Your task to perform on an android device: toggle translation in the chrome app Image 0: 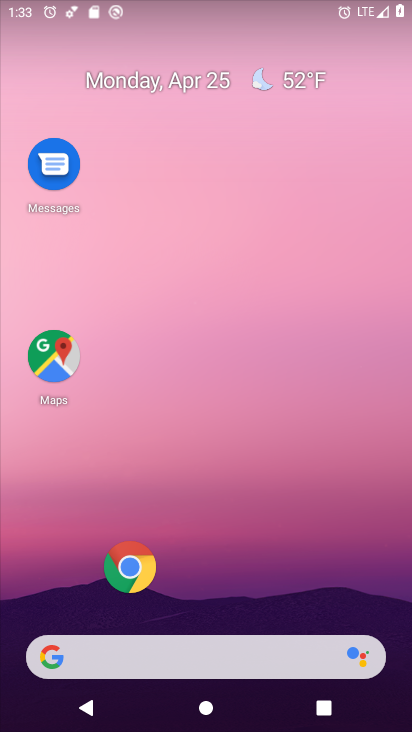
Step 0: drag from (217, 573) to (236, 116)
Your task to perform on an android device: toggle translation in the chrome app Image 1: 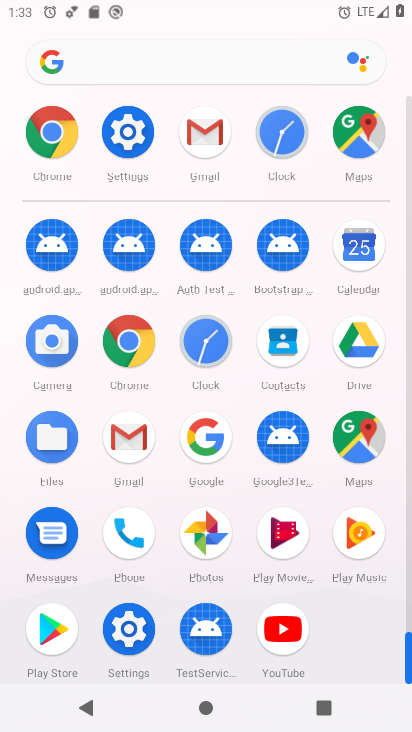
Step 1: click (120, 355)
Your task to perform on an android device: toggle translation in the chrome app Image 2: 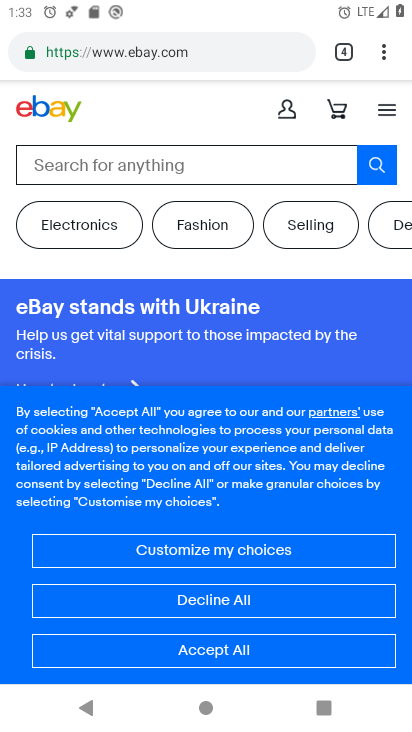
Step 2: click (387, 56)
Your task to perform on an android device: toggle translation in the chrome app Image 3: 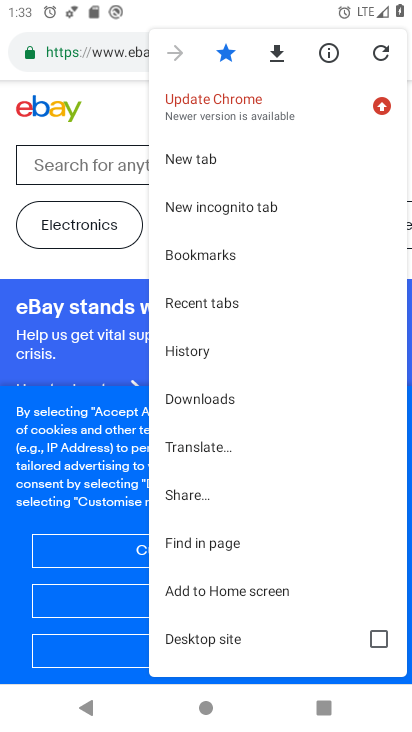
Step 3: click (219, 452)
Your task to perform on an android device: toggle translation in the chrome app Image 4: 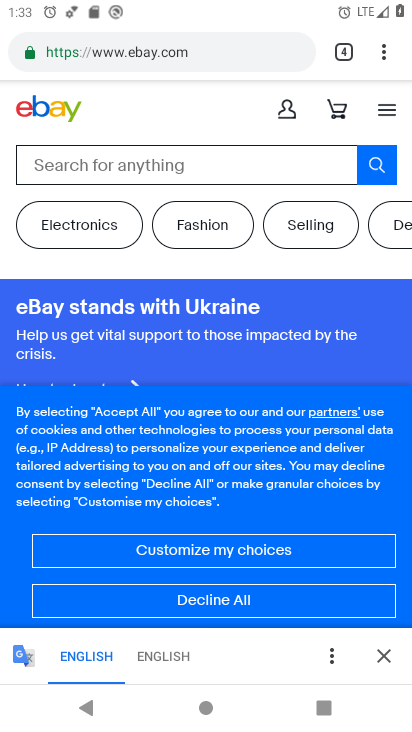
Step 4: click (336, 663)
Your task to perform on an android device: toggle translation in the chrome app Image 5: 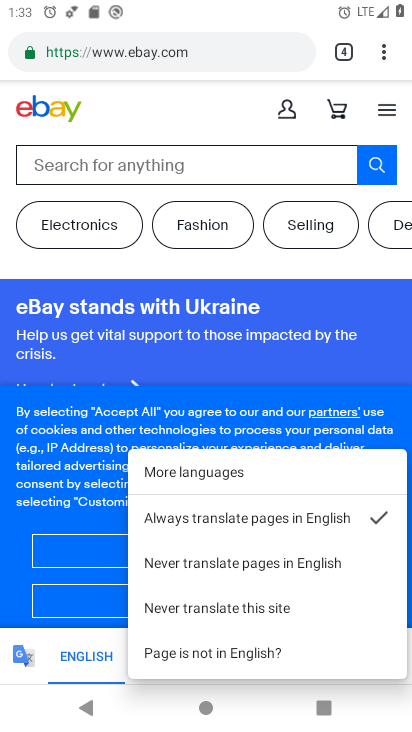
Step 5: click (293, 623)
Your task to perform on an android device: toggle translation in the chrome app Image 6: 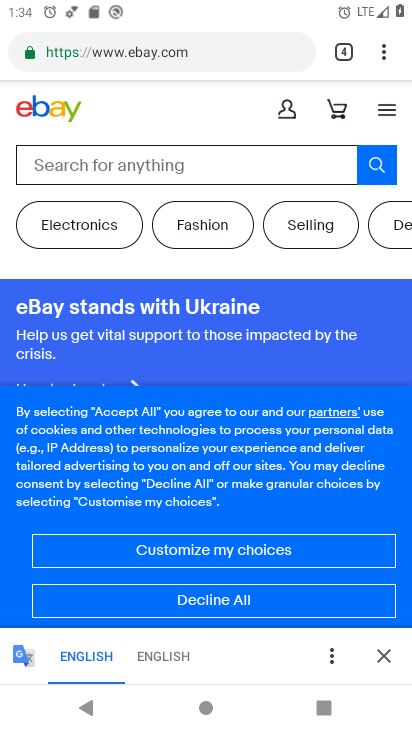
Step 6: task complete